Your task to perform on an android device: set the timer Image 0: 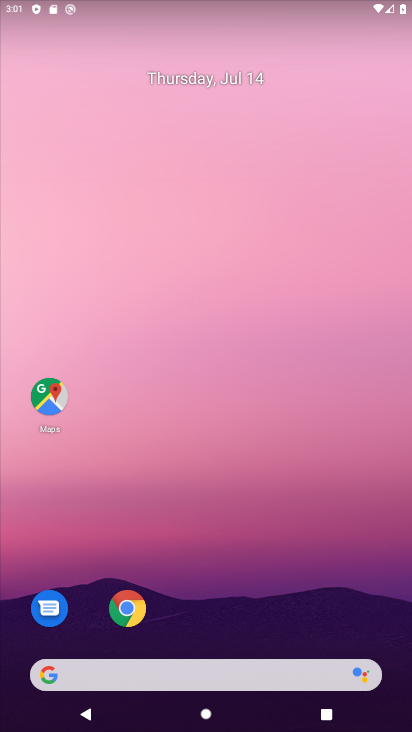
Step 0: drag from (202, 671) to (130, 9)
Your task to perform on an android device: set the timer Image 1: 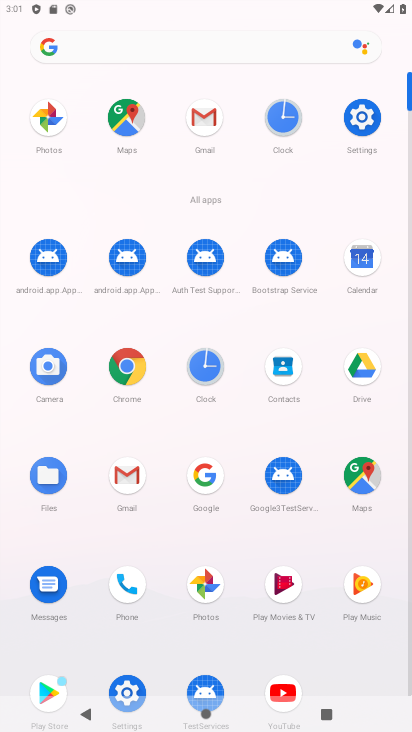
Step 1: click (210, 363)
Your task to perform on an android device: set the timer Image 2: 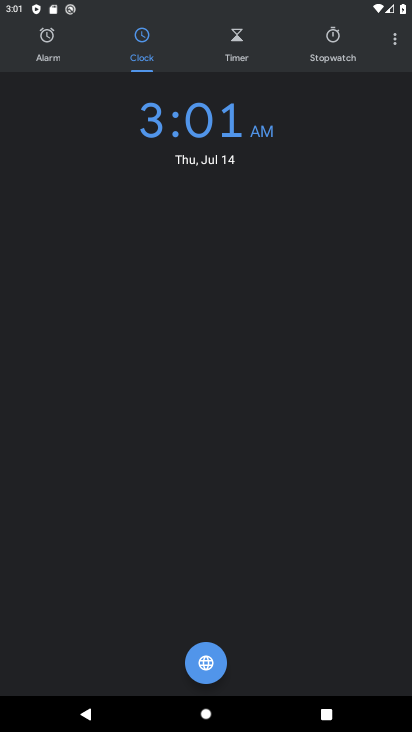
Step 2: click (243, 50)
Your task to perform on an android device: set the timer Image 3: 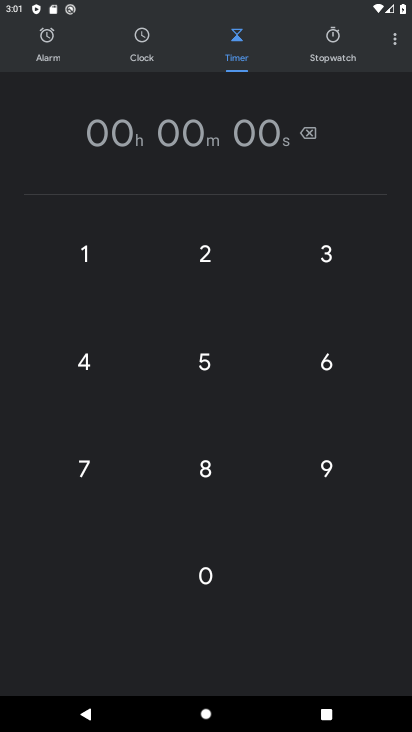
Step 3: click (201, 351)
Your task to perform on an android device: set the timer Image 4: 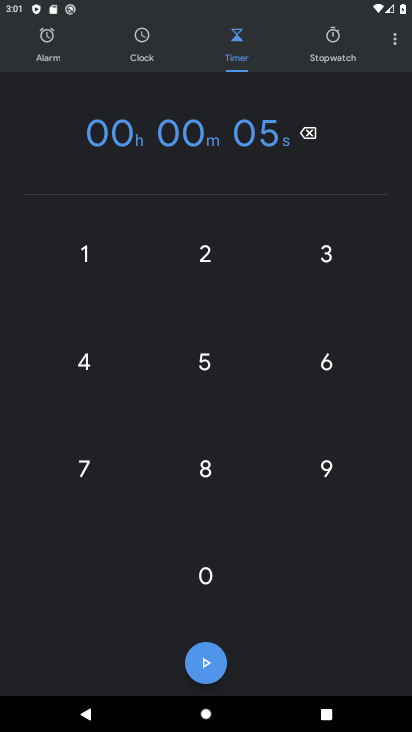
Step 4: click (195, 371)
Your task to perform on an android device: set the timer Image 5: 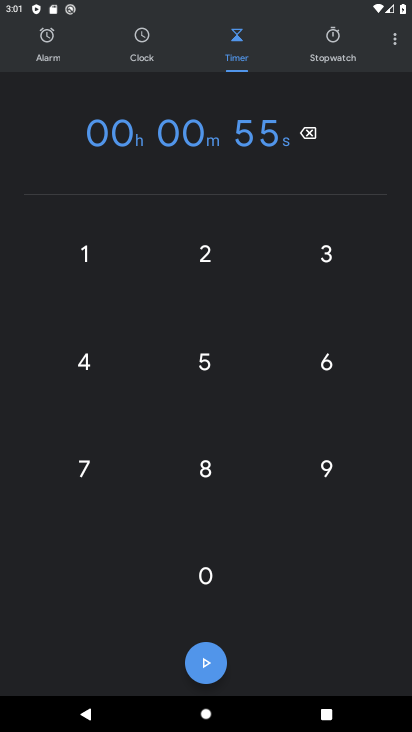
Step 5: click (311, 365)
Your task to perform on an android device: set the timer Image 6: 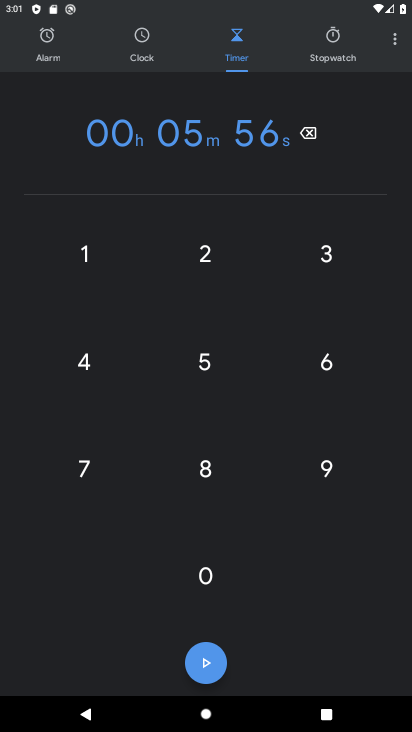
Step 6: click (216, 366)
Your task to perform on an android device: set the timer Image 7: 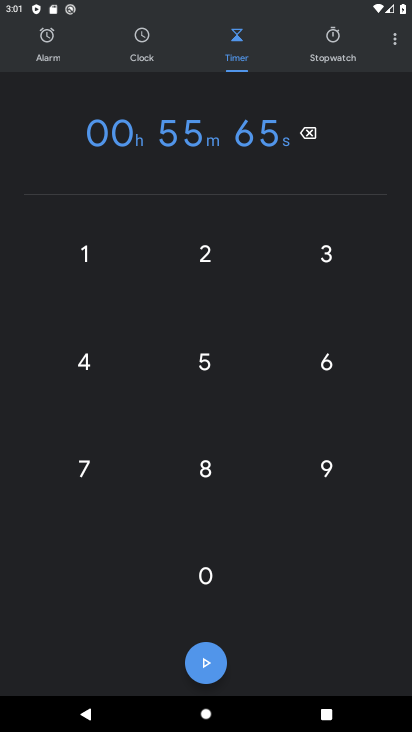
Step 7: click (198, 669)
Your task to perform on an android device: set the timer Image 8: 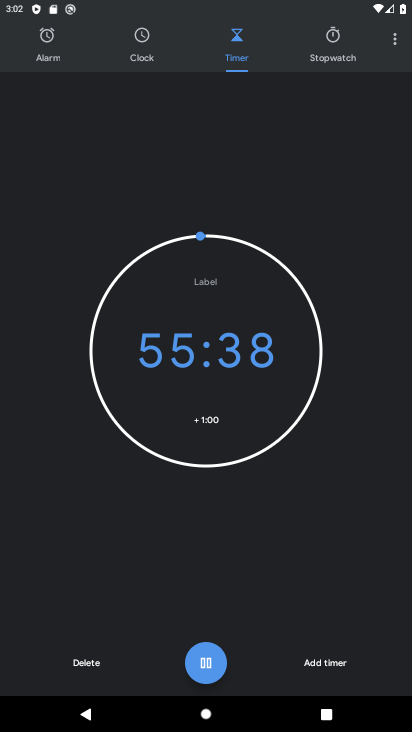
Step 8: click (198, 669)
Your task to perform on an android device: set the timer Image 9: 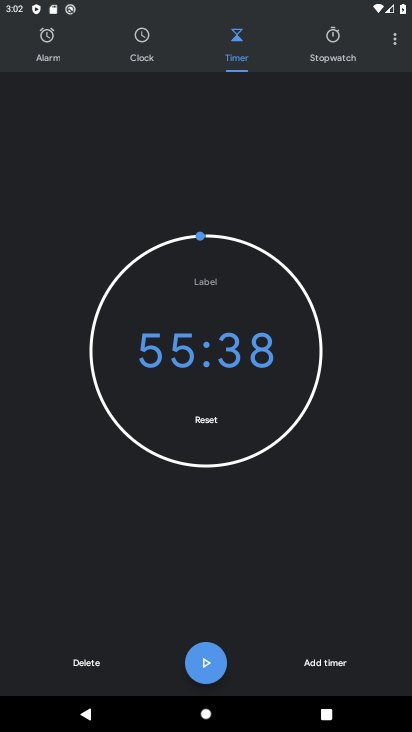
Step 9: task complete